Your task to perform on an android device: Go to sound settings Image 0: 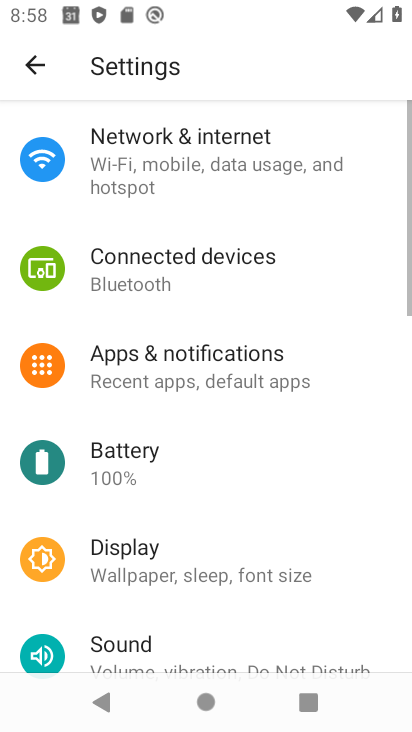
Step 0: press home button
Your task to perform on an android device: Go to sound settings Image 1: 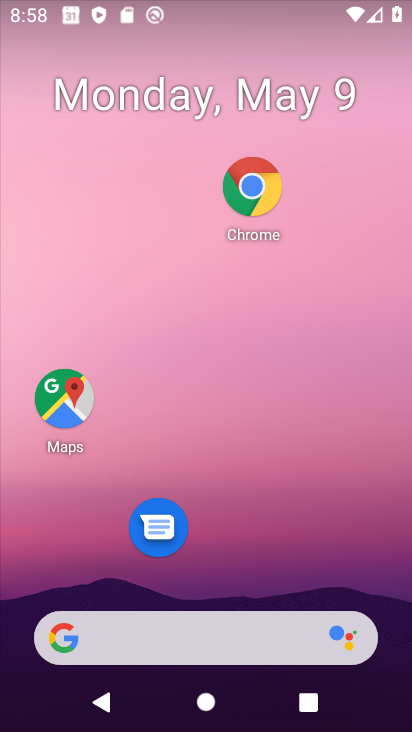
Step 1: drag from (215, 592) to (193, 1)
Your task to perform on an android device: Go to sound settings Image 2: 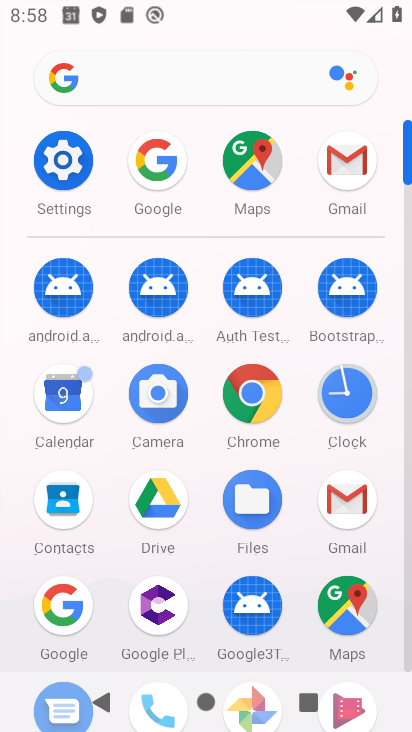
Step 2: click (58, 154)
Your task to perform on an android device: Go to sound settings Image 3: 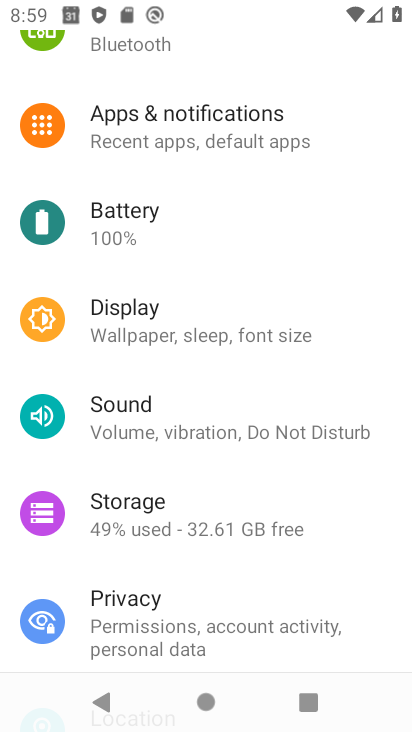
Step 3: click (175, 406)
Your task to perform on an android device: Go to sound settings Image 4: 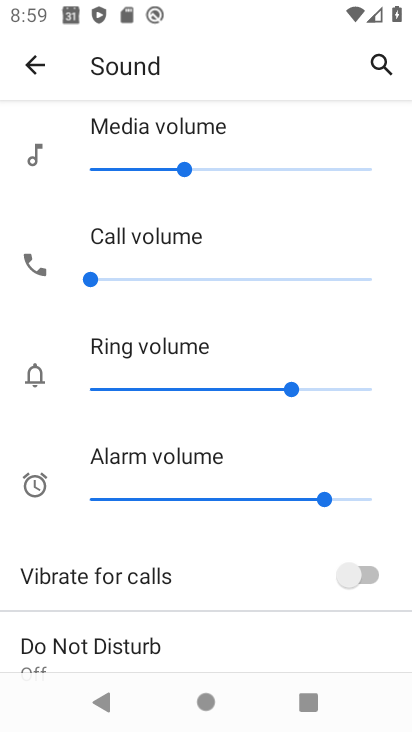
Step 4: task complete